Your task to perform on an android device: Go to battery settings Image 0: 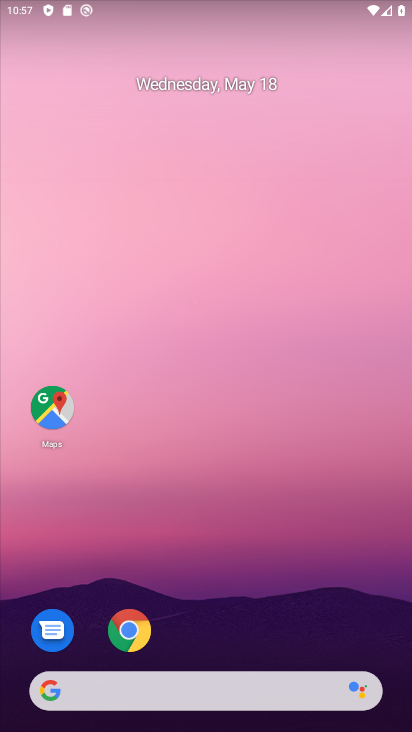
Step 0: drag from (192, 616) to (260, 69)
Your task to perform on an android device: Go to battery settings Image 1: 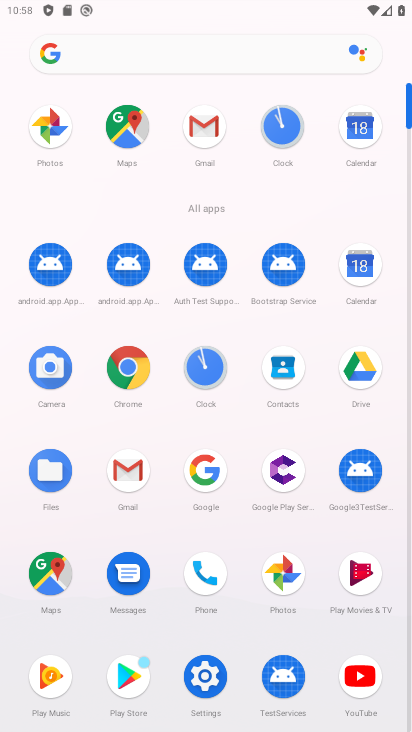
Step 1: click (214, 672)
Your task to perform on an android device: Go to battery settings Image 2: 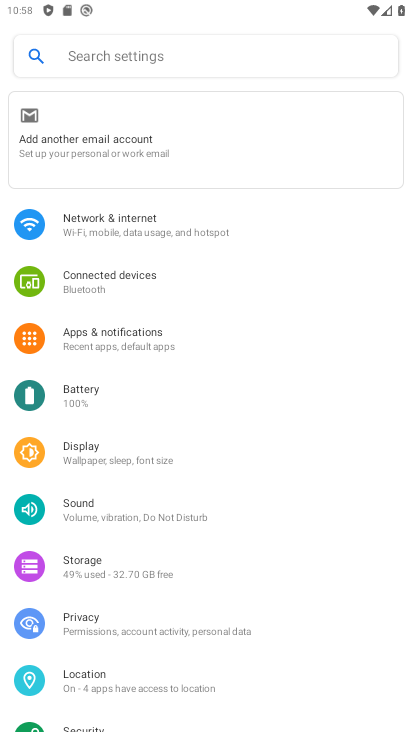
Step 2: click (99, 402)
Your task to perform on an android device: Go to battery settings Image 3: 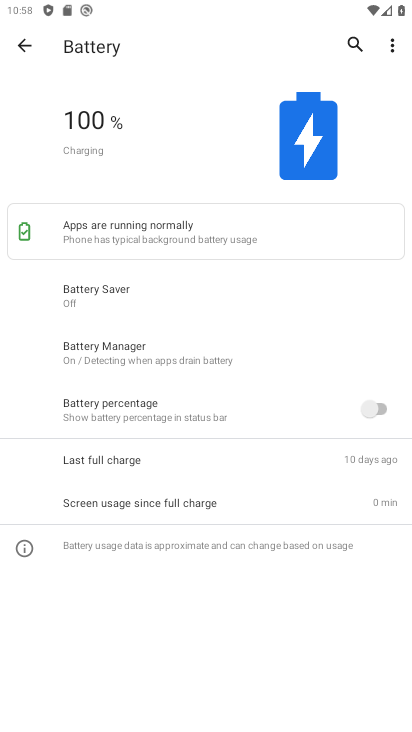
Step 3: task complete